Your task to perform on an android device: find photos in the google photos app Image 0: 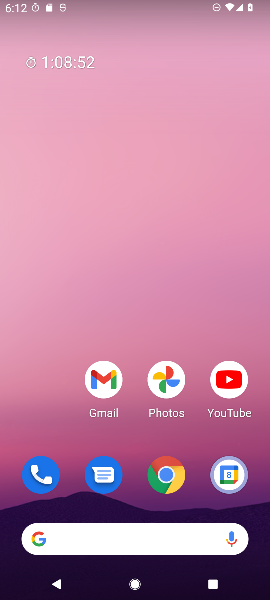
Step 0: press home button
Your task to perform on an android device: find photos in the google photos app Image 1: 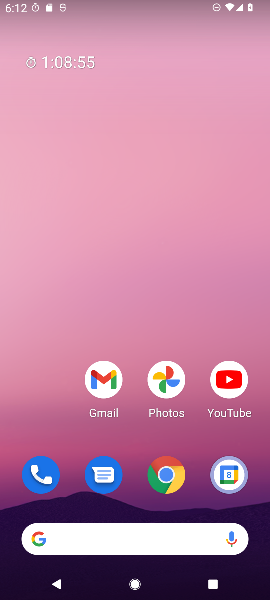
Step 1: drag from (62, 440) to (62, 180)
Your task to perform on an android device: find photos in the google photos app Image 2: 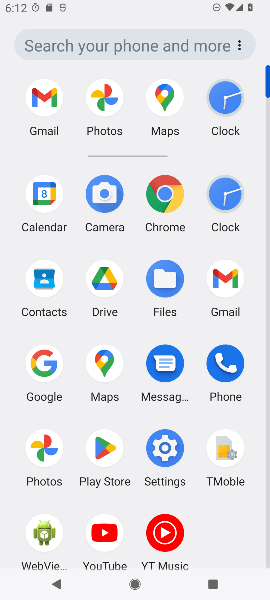
Step 2: click (42, 452)
Your task to perform on an android device: find photos in the google photos app Image 3: 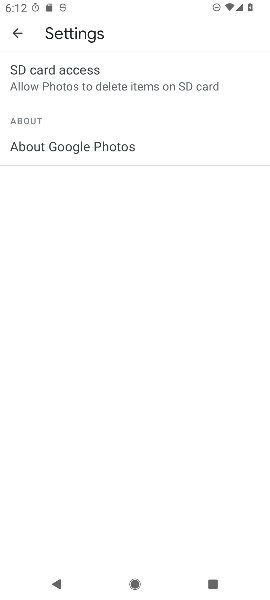
Step 3: press back button
Your task to perform on an android device: find photos in the google photos app Image 4: 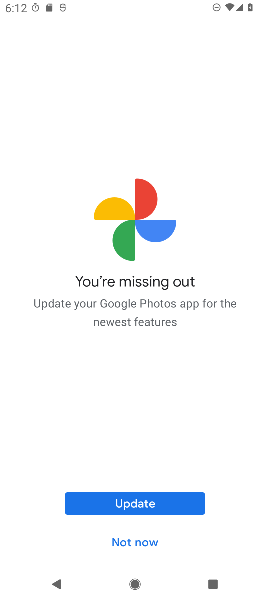
Step 4: click (154, 539)
Your task to perform on an android device: find photos in the google photos app Image 5: 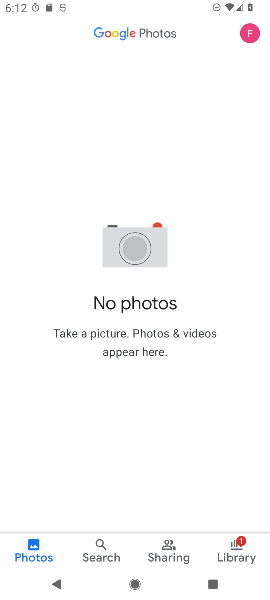
Step 5: task complete